Your task to perform on an android device: toggle notifications settings in the gmail app Image 0: 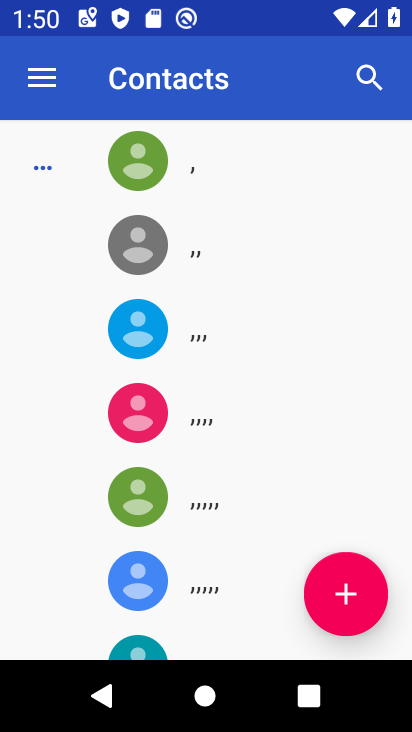
Step 0: press back button
Your task to perform on an android device: toggle notifications settings in the gmail app Image 1: 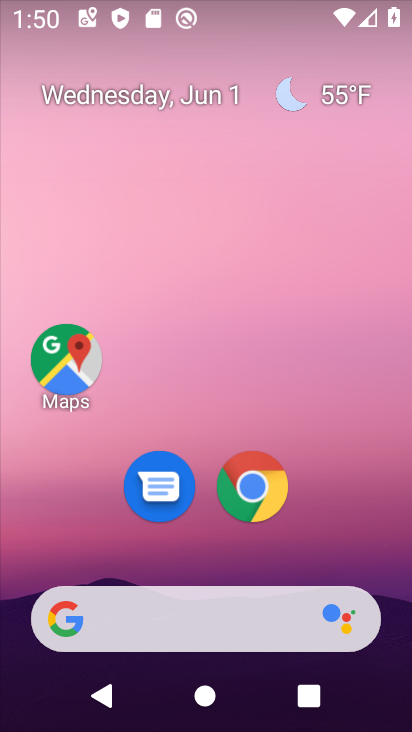
Step 1: drag from (230, 428) to (260, 9)
Your task to perform on an android device: toggle notifications settings in the gmail app Image 2: 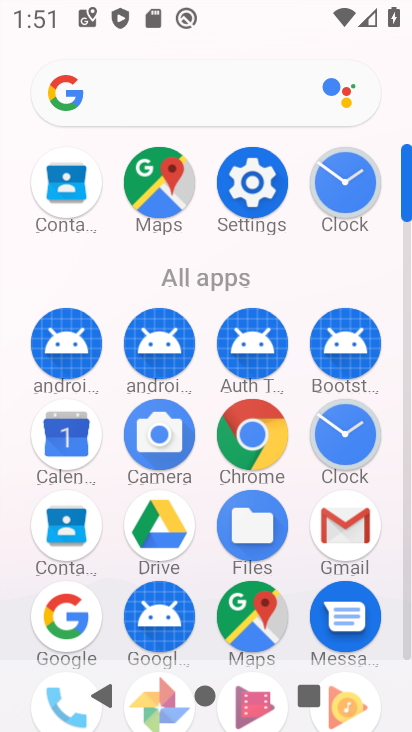
Step 2: click (342, 526)
Your task to perform on an android device: toggle notifications settings in the gmail app Image 3: 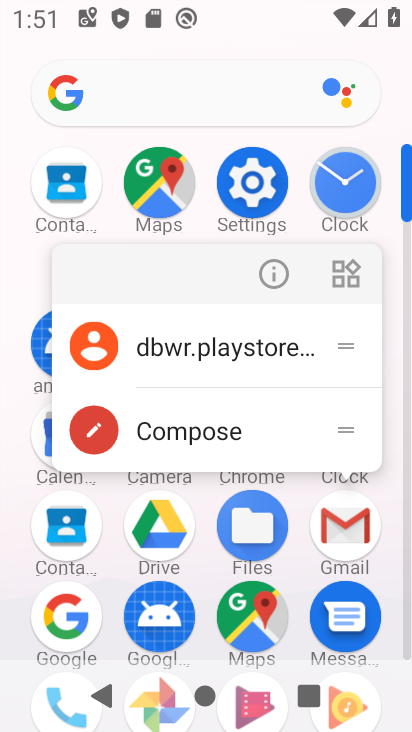
Step 3: click (273, 270)
Your task to perform on an android device: toggle notifications settings in the gmail app Image 4: 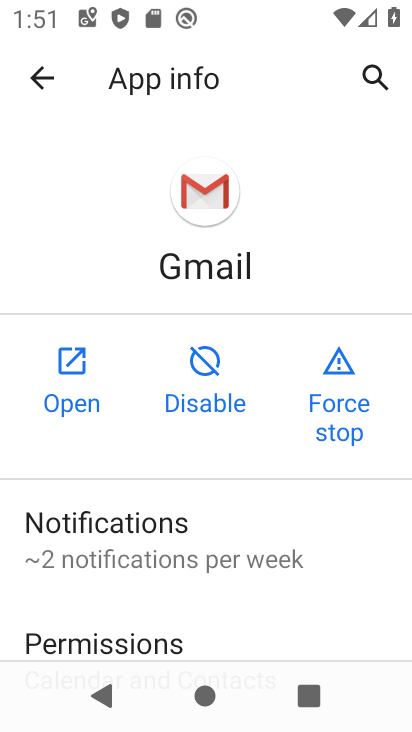
Step 4: click (117, 530)
Your task to perform on an android device: toggle notifications settings in the gmail app Image 5: 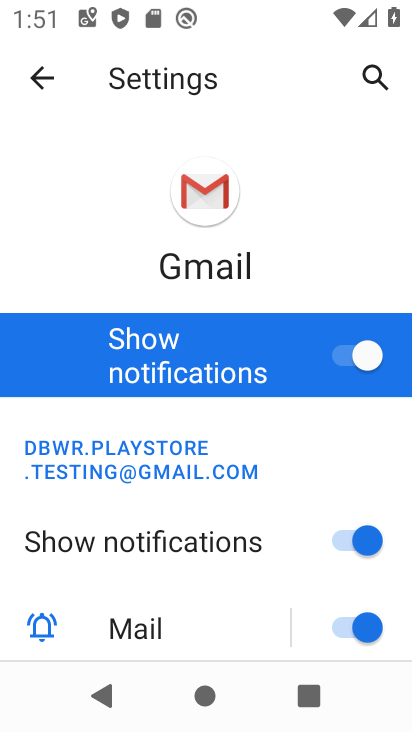
Step 5: click (354, 369)
Your task to perform on an android device: toggle notifications settings in the gmail app Image 6: 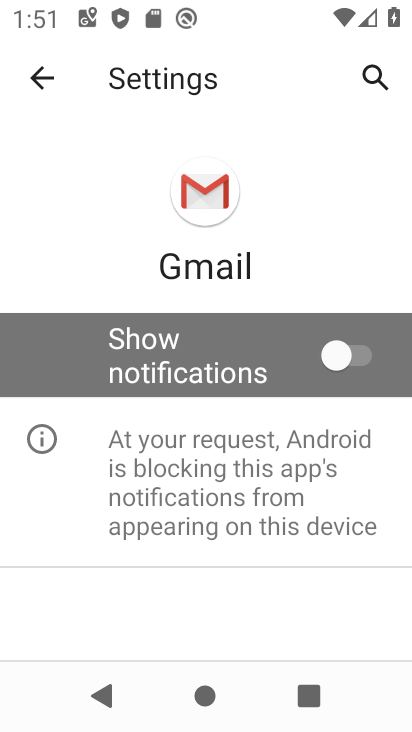
Step 6: task complete